Your task to perform on an android device: What's the weather? Image 0: 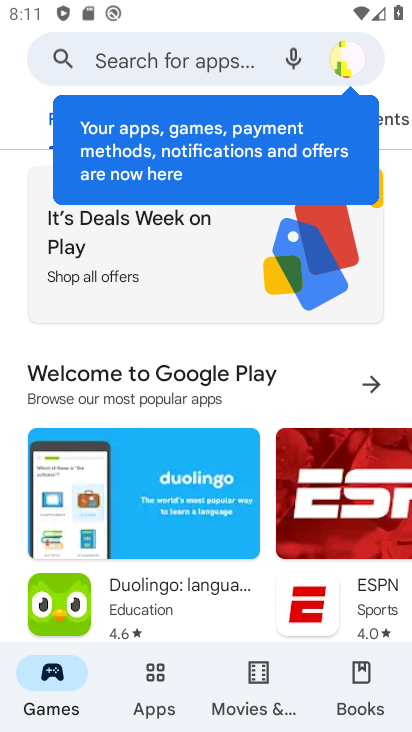
Step 0: press home button
Your task to perform on an android device: What's the weather? Image 1: 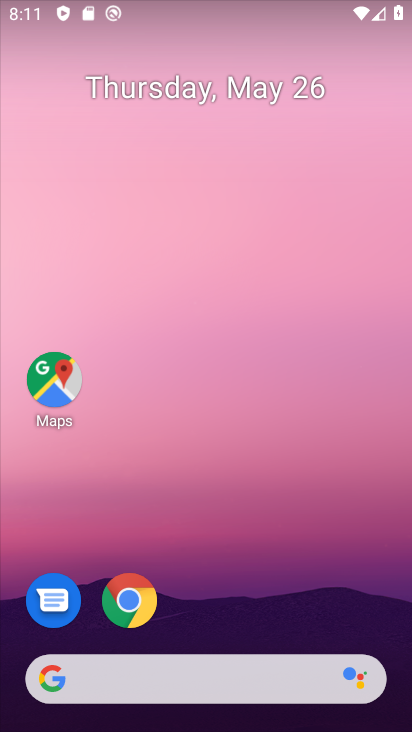
Step 1: click (207, 667)
Your task to perform on an android device: What's the weather? Image 2: 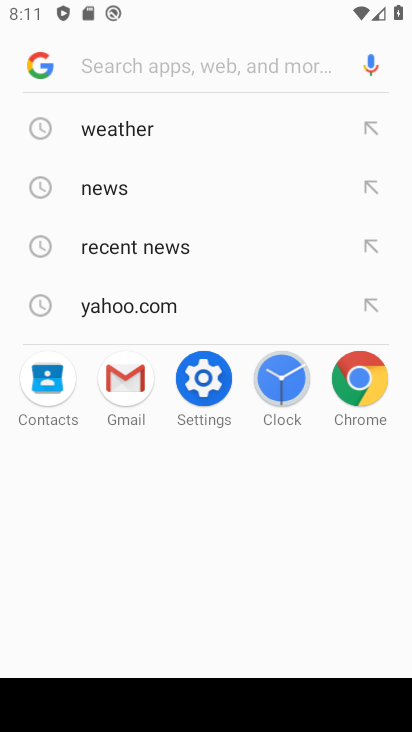
Step 2: click (108, 125)
Your task to perform on an android device: What's the weather? Image 3: 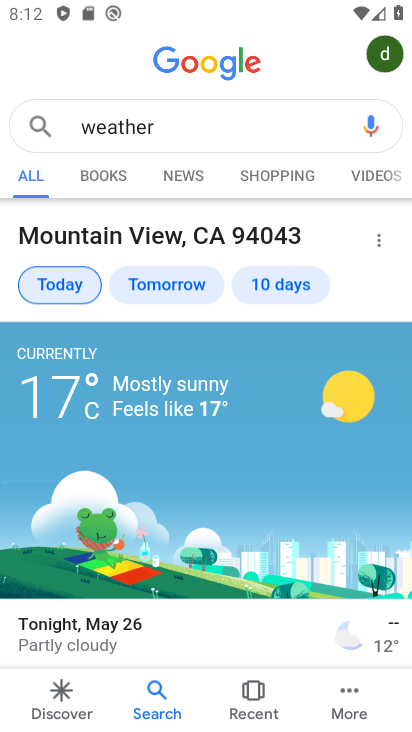
Step 3: task complete